Your task to perform on an android device: turn on data saver in the chrome app Image 0: 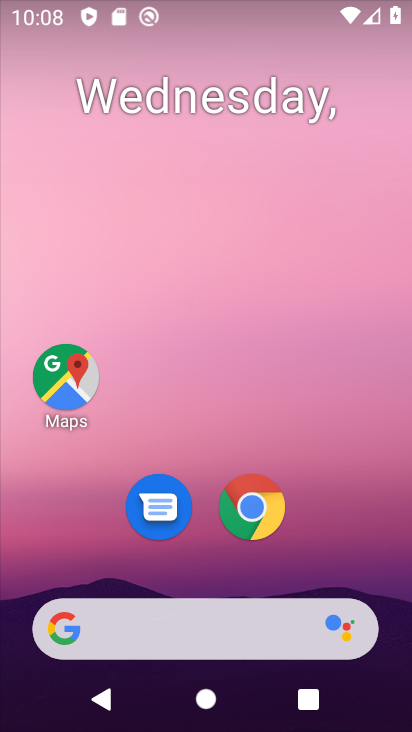
Step 0: drag from (343, 521) to (330, 162)
Your task to perform on an android device: turn on data saver in the chrome app Image 1: 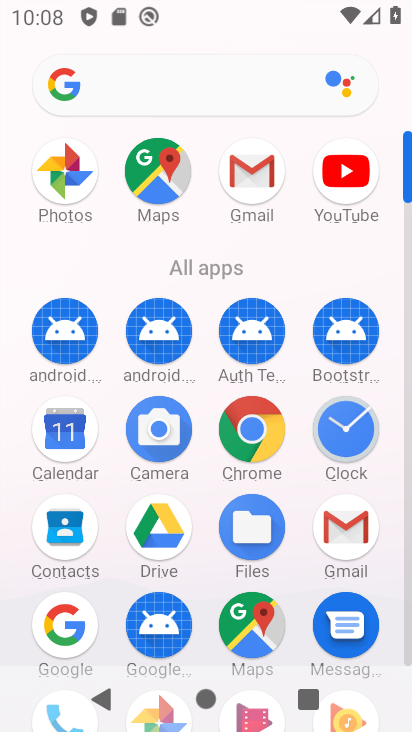
Step 1: click (248, 426)
Your task to perform on an android device: turn on data saver in the chrome app Image 2: 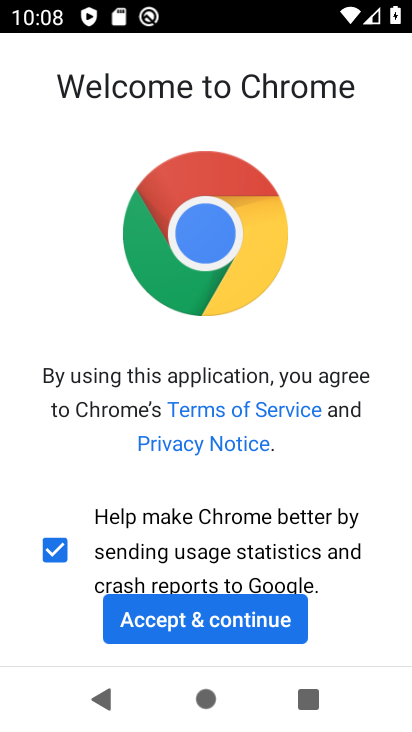
Step 2: click (241, 608)
Your task to perform on an android device: turn on data saver in the chrome app Image 3: 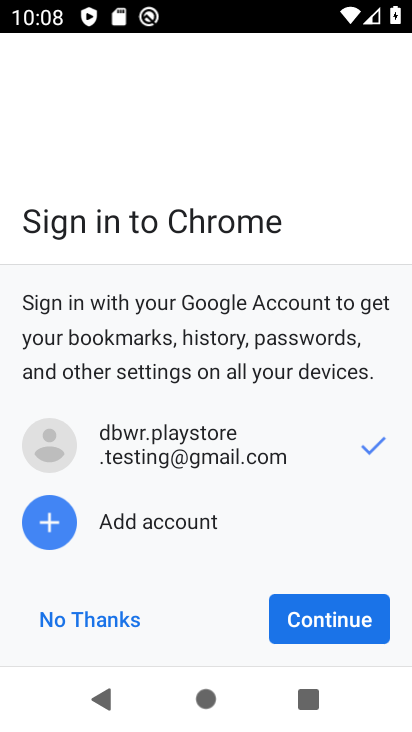
Step 3: click (318, 621)
Your task to perform on an android device: turn on data saver in the chrome app Image 4: 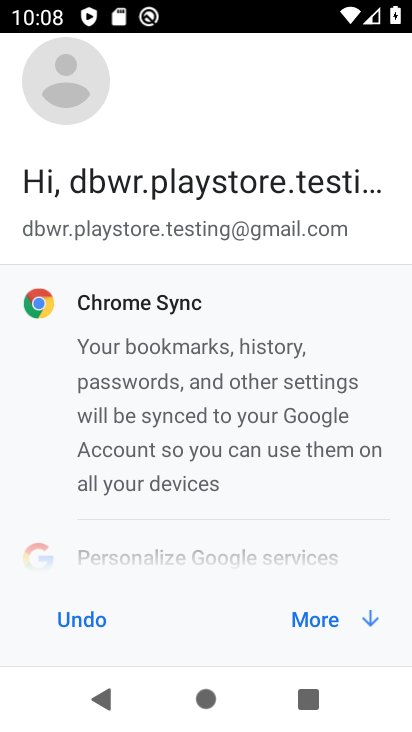
Step 4: click (302, 622)
Your task to perform on an android device: turn on data saver in the chrome app Image 5: 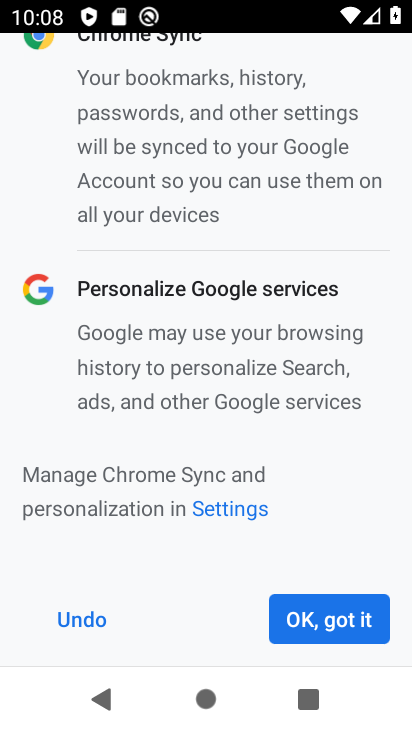
Step 5: click (322, 621)
Your task to perform on an android device: turn on data saver in the chrome app Image 6: 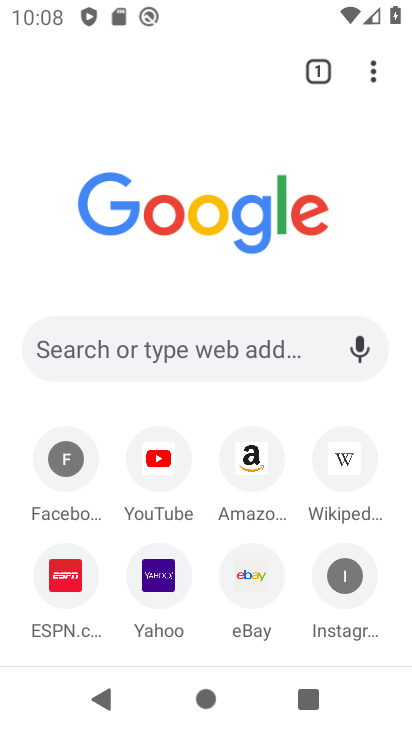
Step 6: click (363, 70)
Your task to perform on an android device: turn on data saver in the chrome app Image 7: 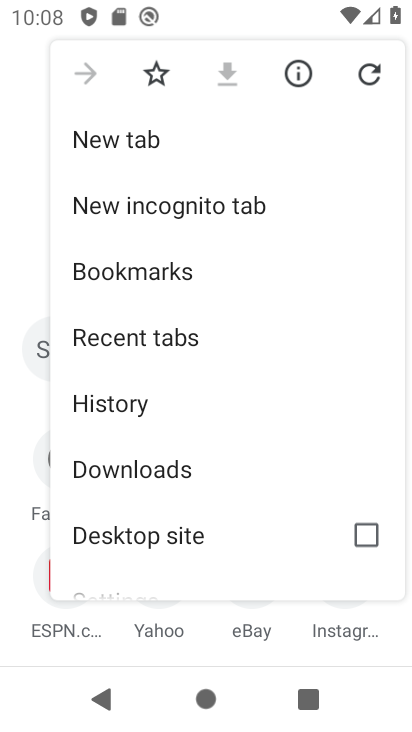
Step 7: drag from (204, 508) to (218, 205)
Your task to perform on an android device: turn on data saver in the chrome app Image 8: 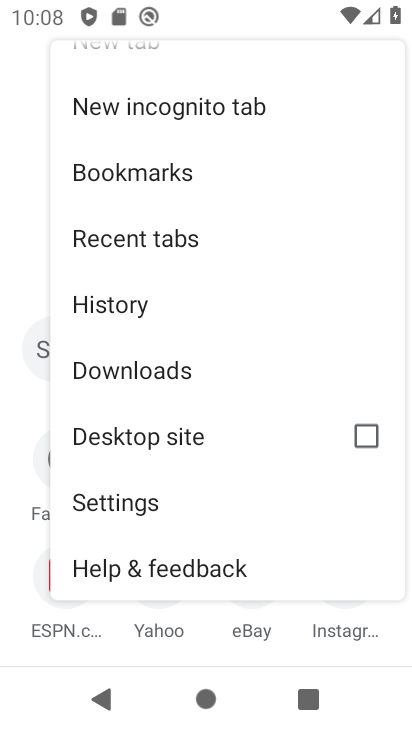
Step 8: click (118, 497)
Your task to perform on an android device: turn on data saver in the chrome app Image 9: 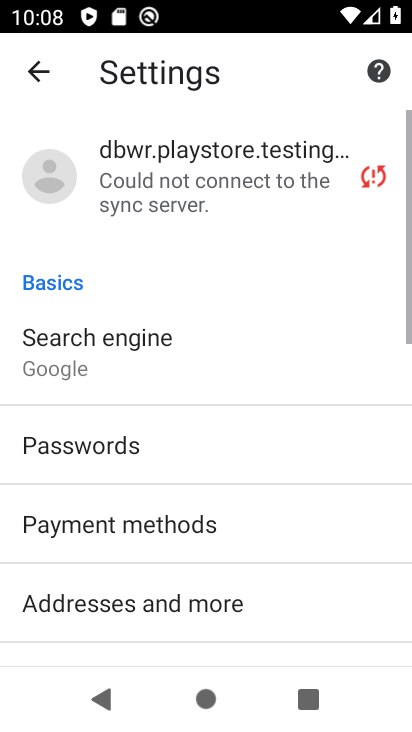
Step 9: drag from (238, 571) to (261, 176)
Your task to perform on an android device: turn on data saver in the chrome app Image 10: 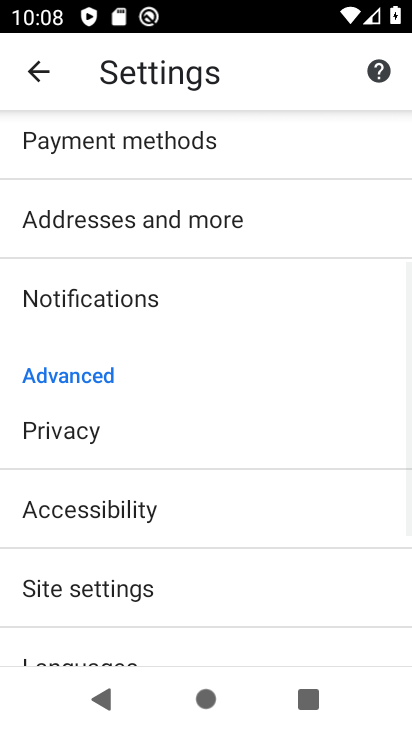
Step 10: drag from (164, 582) to (199, 299)
Your task to perform on an android device: turn on data saver in the chrome app Image 11: 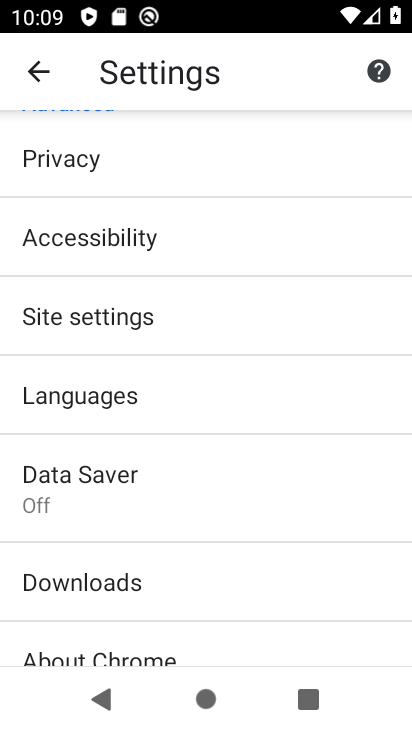
Step 11: click (131, 495)
Your task to perform on an android device: turn on data saver in the chrome app Image 12: 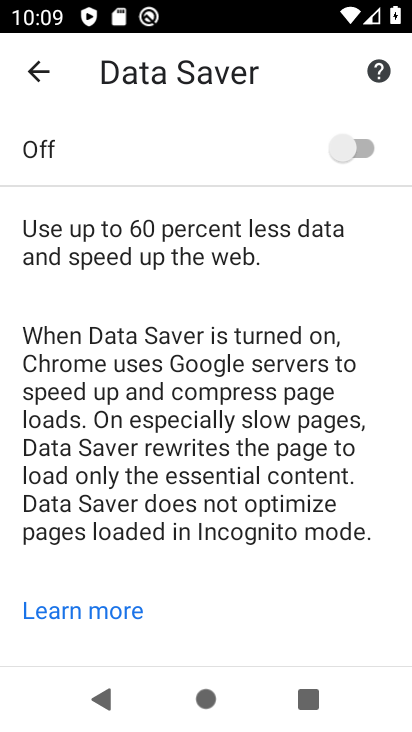
Step 12: task complete